Your task to perform on an android device: What's on my calendar today? Image 0: 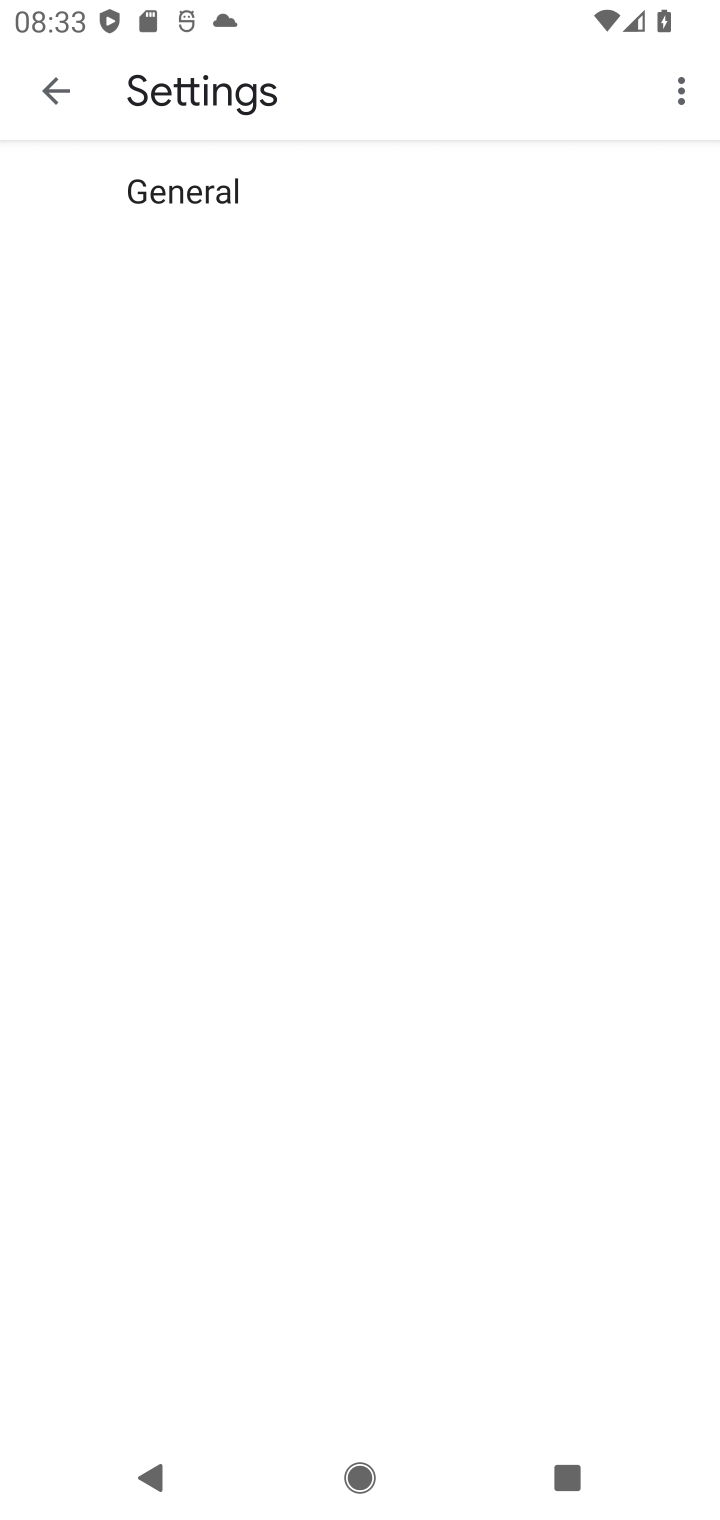
Step 0: press home button
Your task to perform on an android device: What's on my calendar today? Image 1: 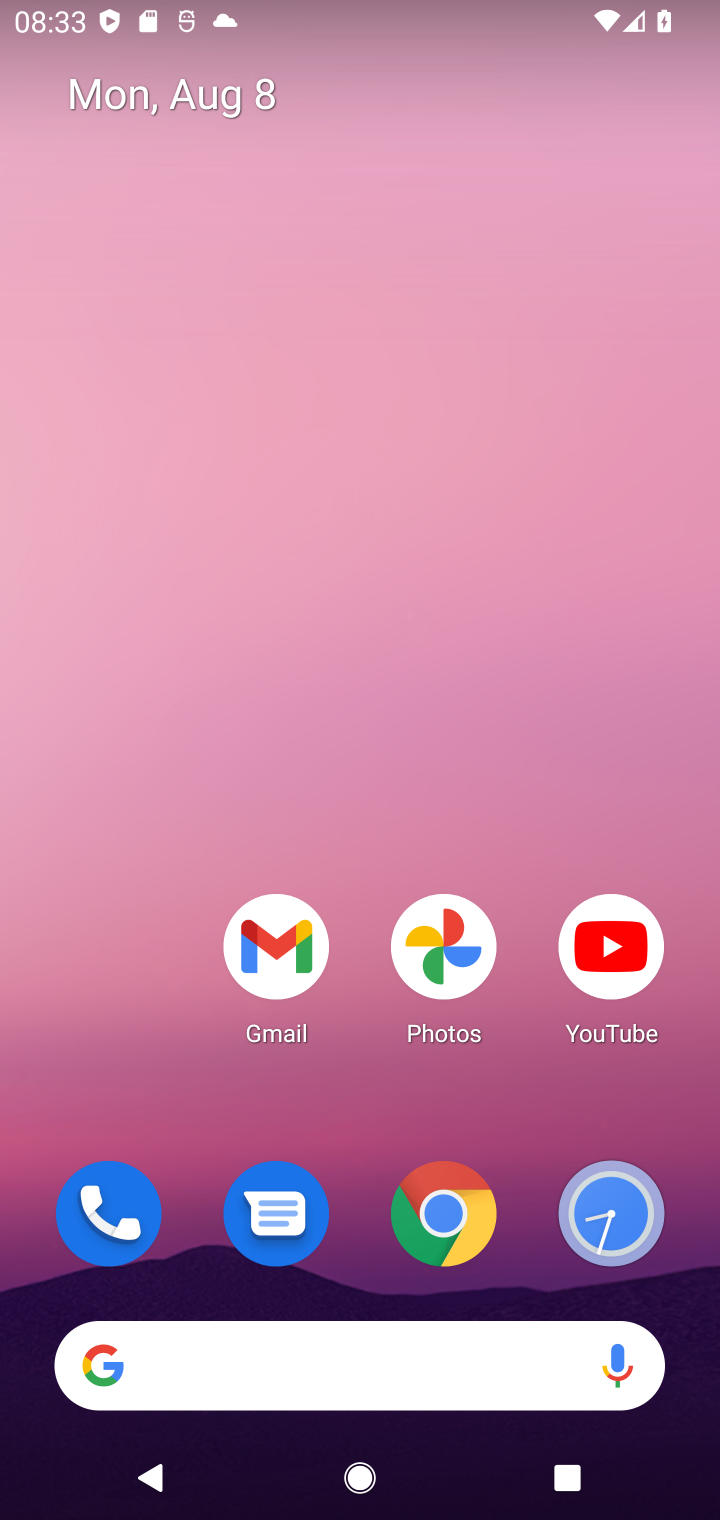
Step 1: drag from (380, 1111) to (323, 343)
Your task to perform on an android device: What's on my calendar today? Image 2: 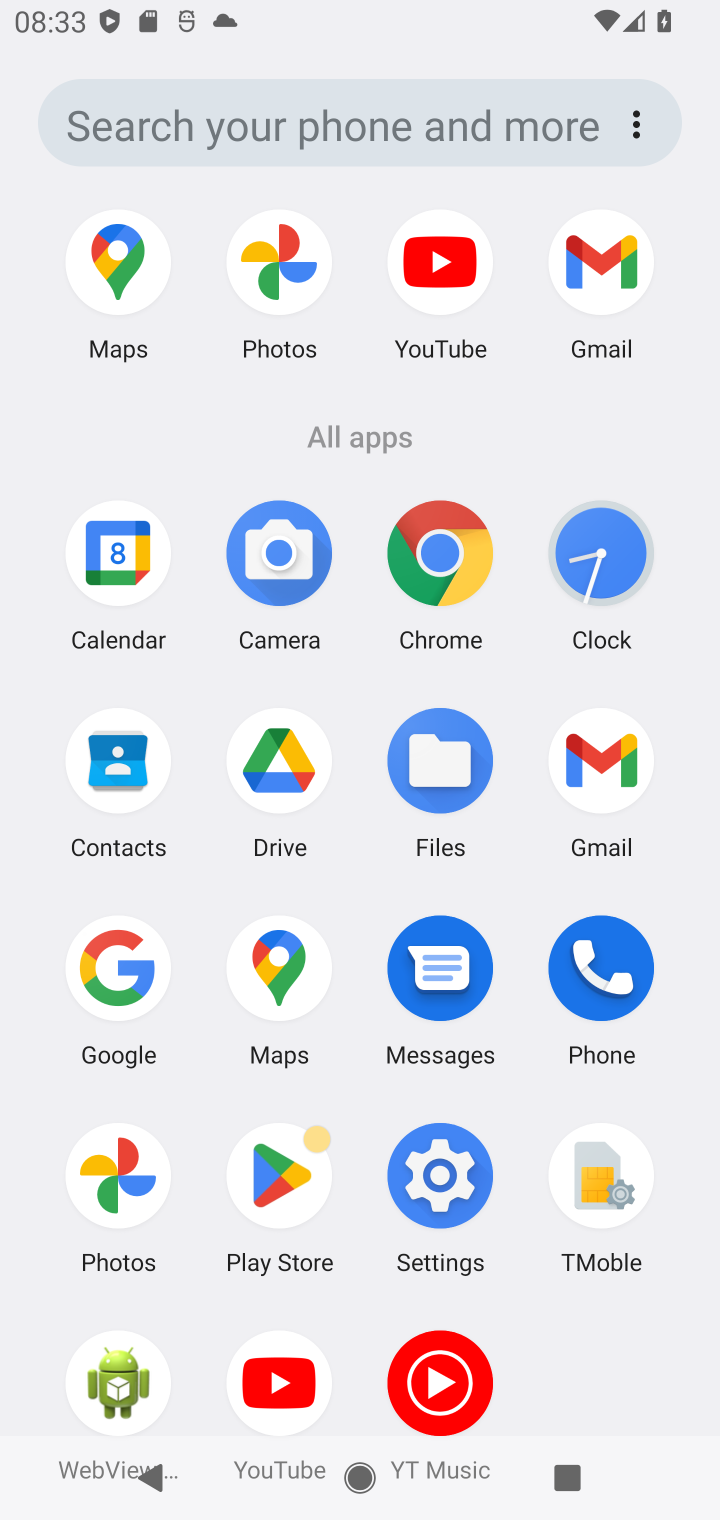
Step 2: click (123, 588)
Your task to perform on an android device: What's on my calendar today? Image 3: 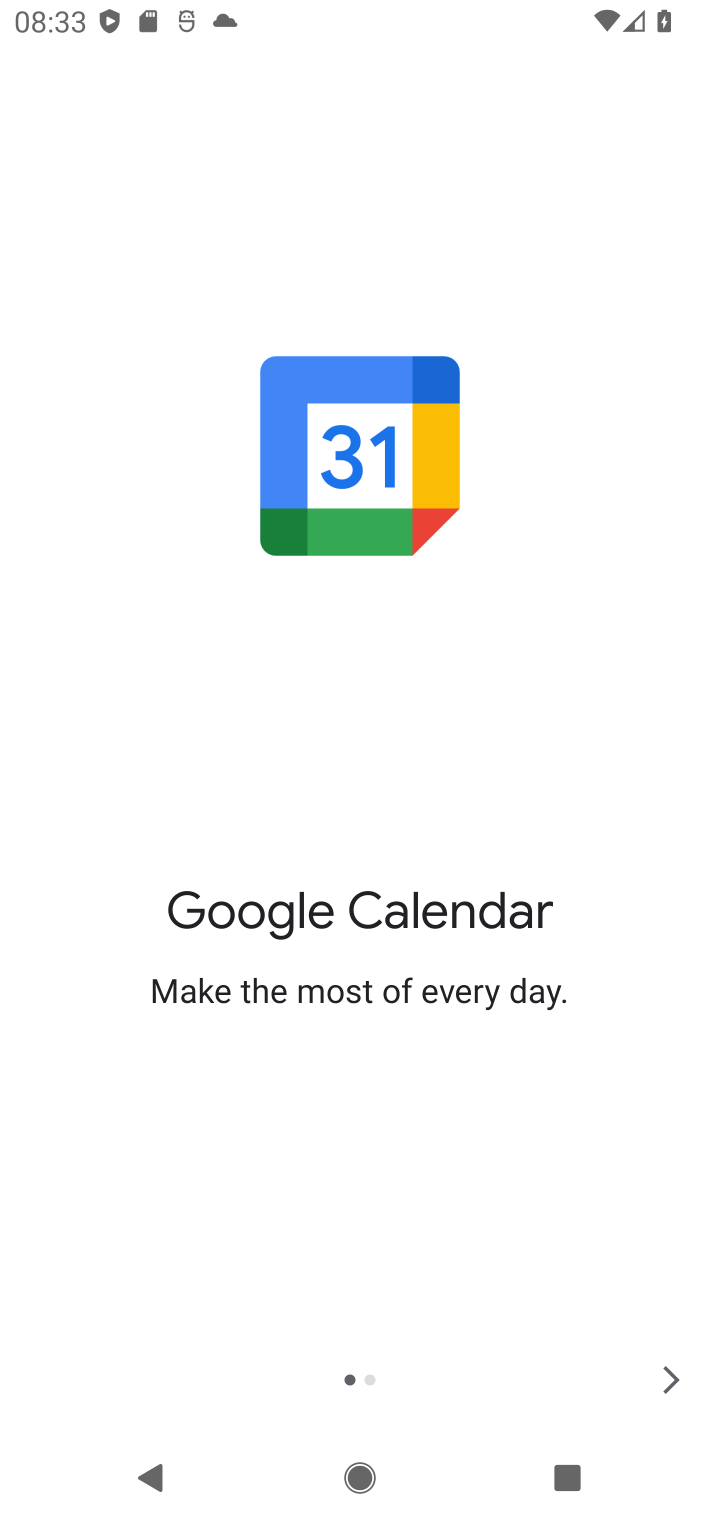
Step 3: click (672, 1374)
Your task to perform on an android device: What's on my calendar today? Image 4: 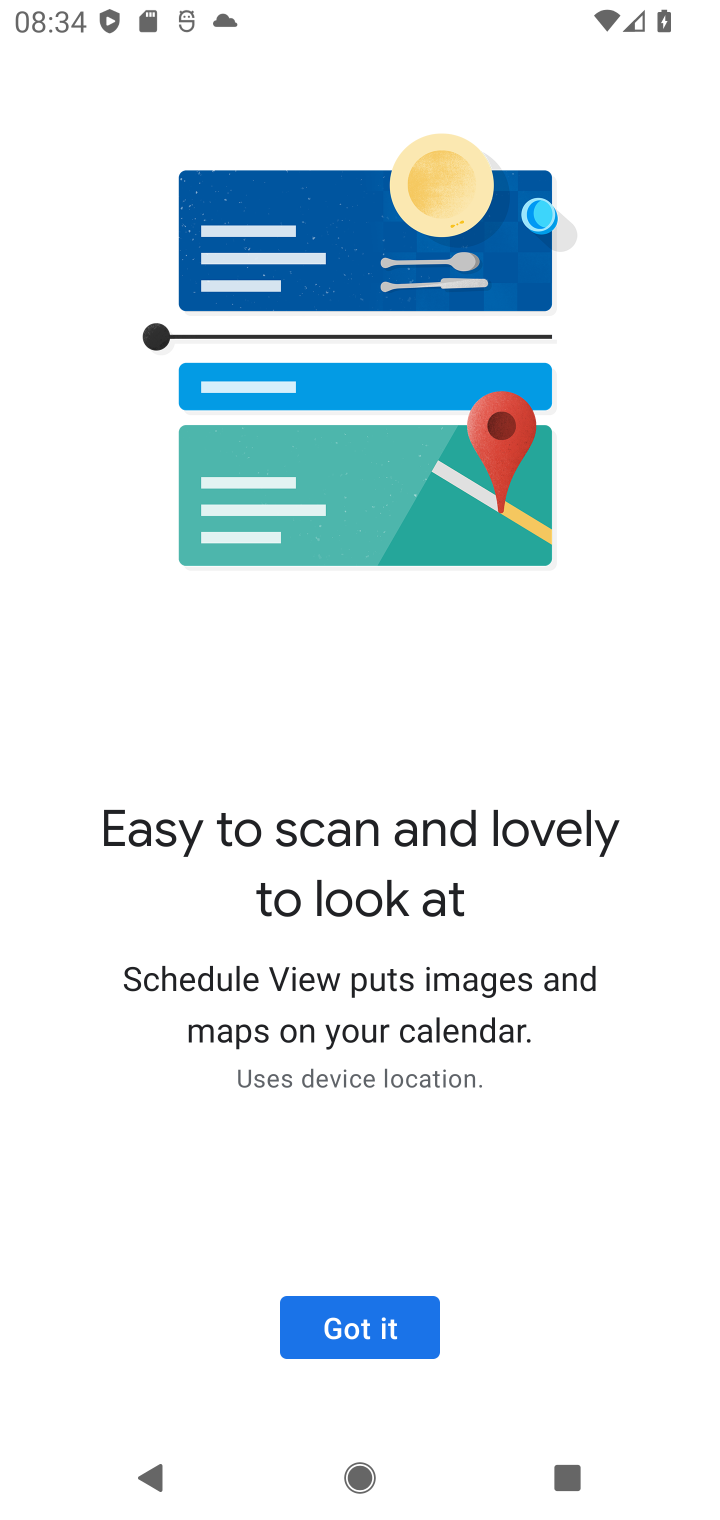
Step 4: click (303, 1319)
Your task to perform on an android device: What's on my calendar today? Image 5: 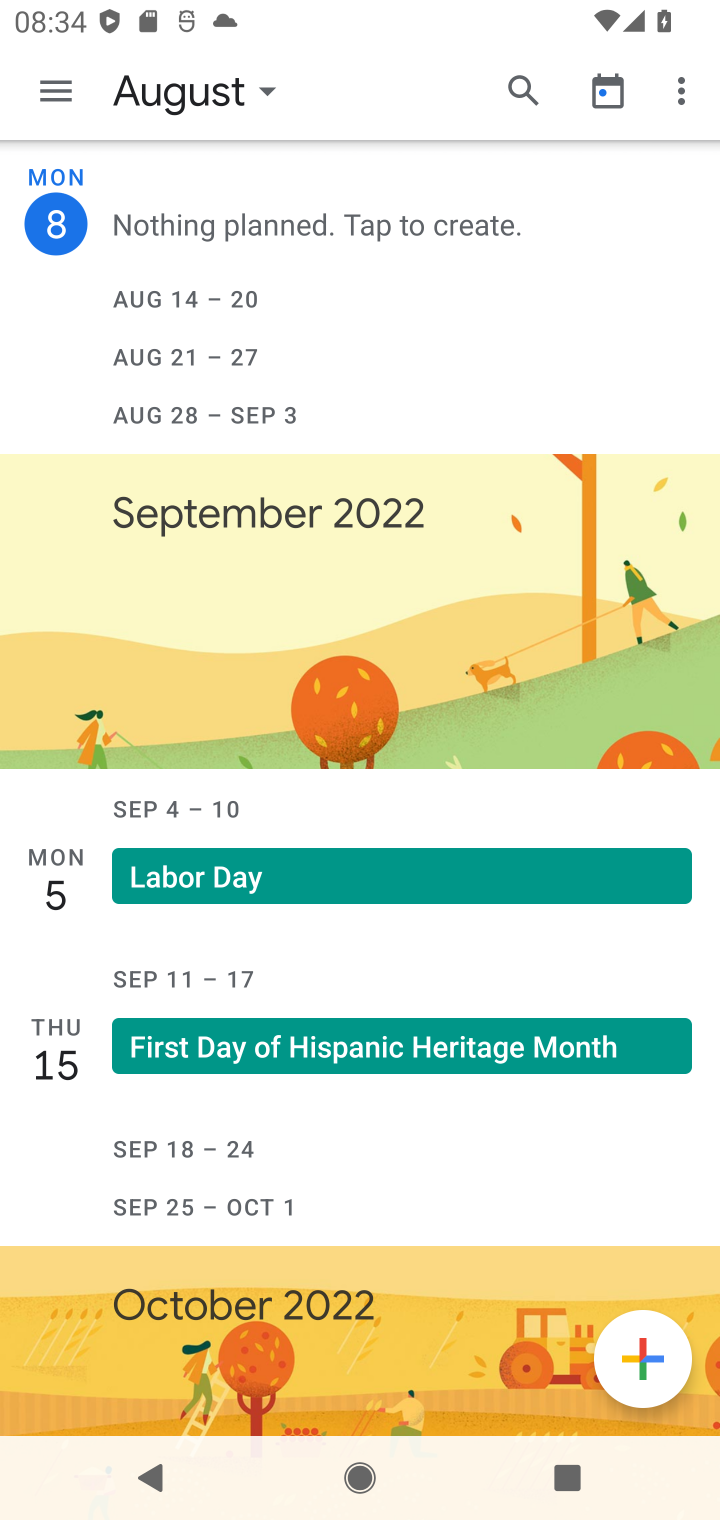
Step 5: click (42, 95)
Your task to perform on an android device: What's on my calendar today? Image 6: 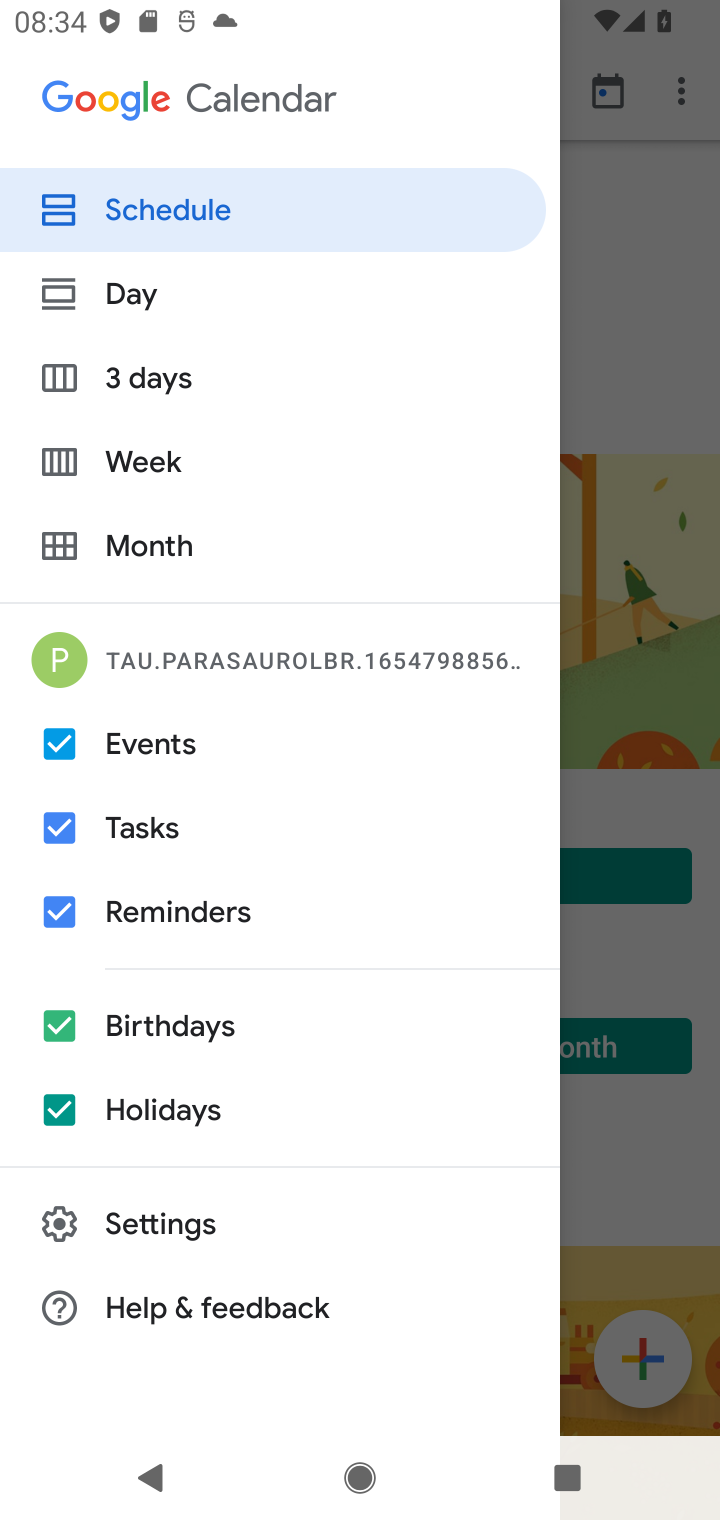
Step 6: click (183, 278)
Your task to perform on an android device: What's on my calendar today? Image 7: 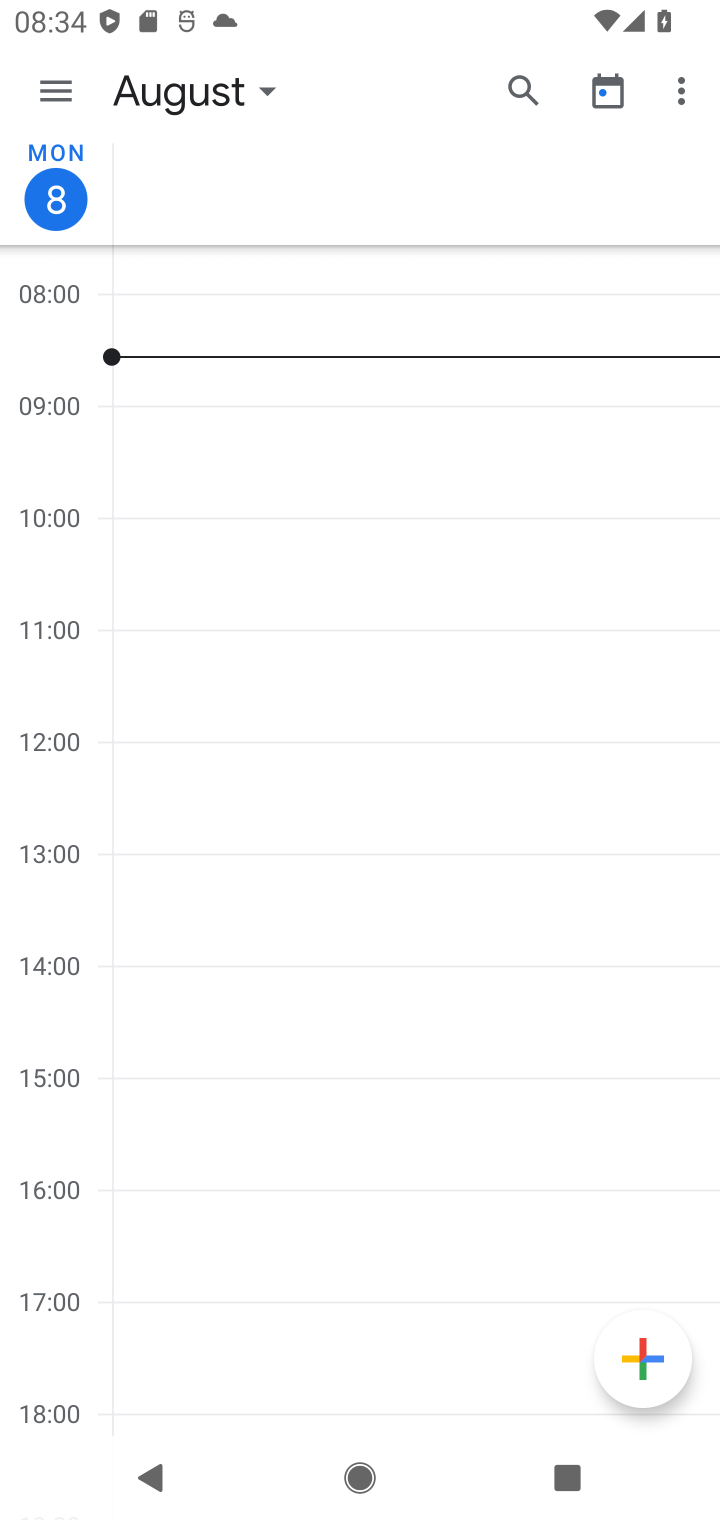
Step 7: task complete